Your task to perform on an android device: manage bookmarks in the chrome app Image 0: 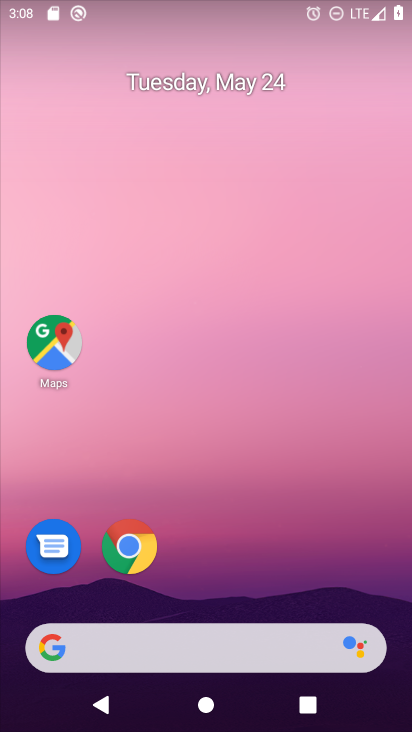
Step 0: click (297, 5)
Your task to perform on an android device: manage bookmarks in the chrome app Image 1: 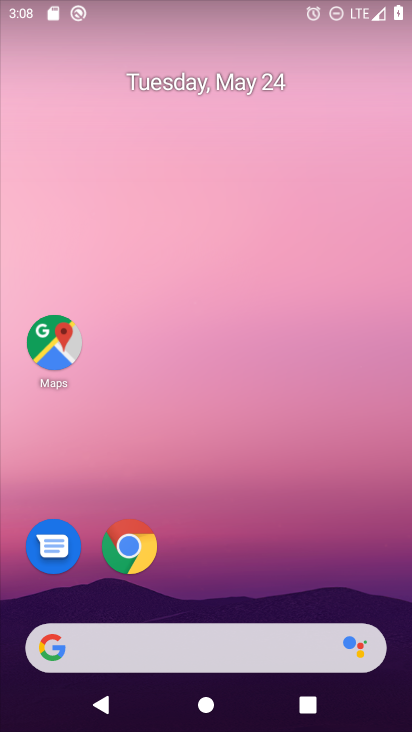
Step 1: drag from (262, 561) to (405, 10)
Your task to perform on an android device: manage bookmarks in the chrome app Image 2: 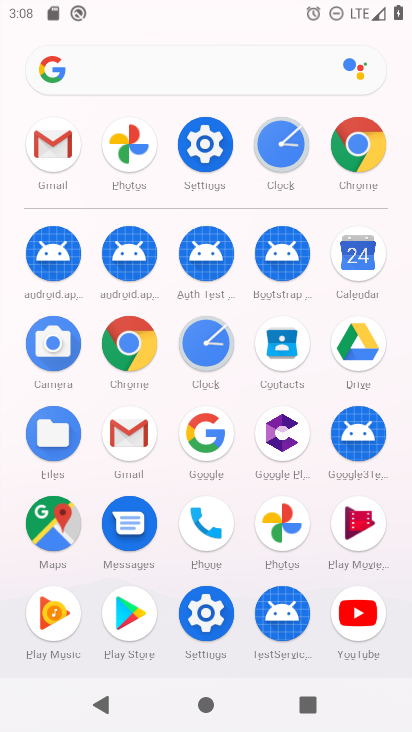
Step 2: click (126, 345)
Your task to perform on an android device: manage bookmarks in the chrome app Image 3: 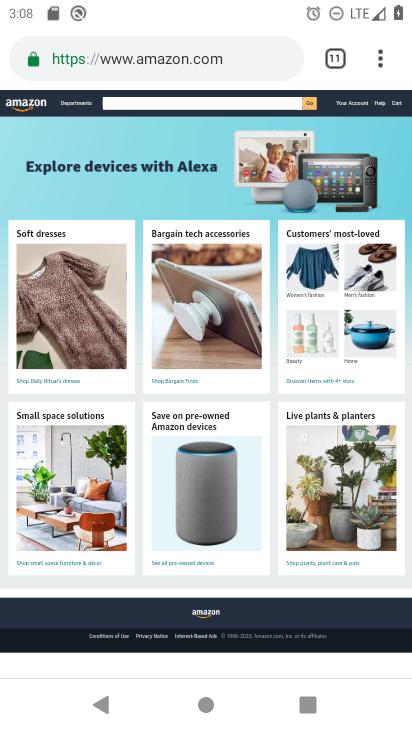
Step 3: drag from (382, 61) to (258, 220)
Your task to perform on an android device: manage bookmarks in the chrome app Image 4: 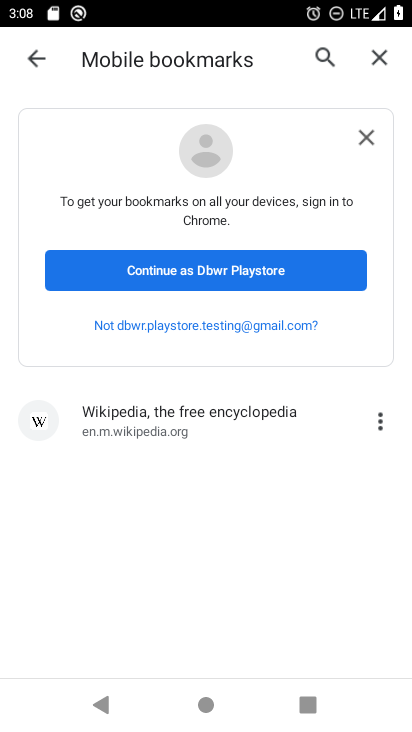
Step 4: click (364, 135)
Your task to perform on an android device: manage bookmarks in the chrome app Image 5: 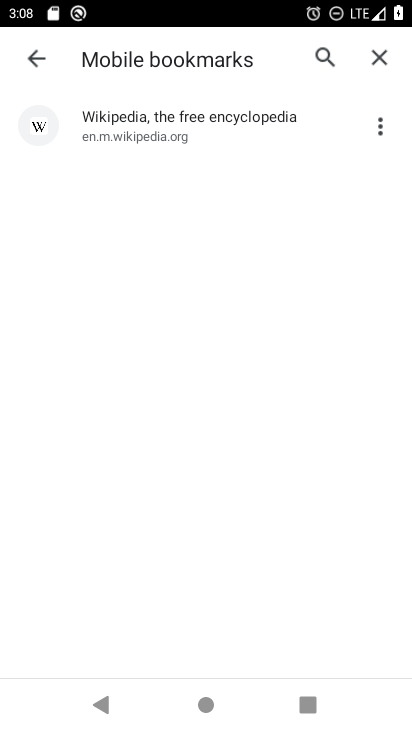
Step 5: task complete